Your task to perform on an android device: add a label to a message in the gmail app Image 0: 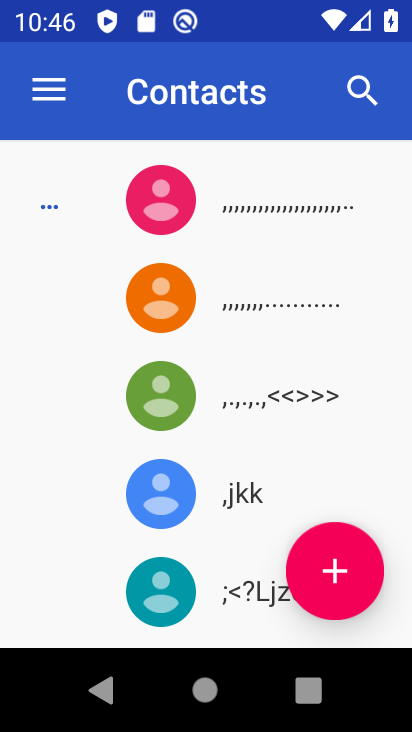
Step 0: press home button
Your task to perform on an android device: add a label to a message in the gmail app Image 1: 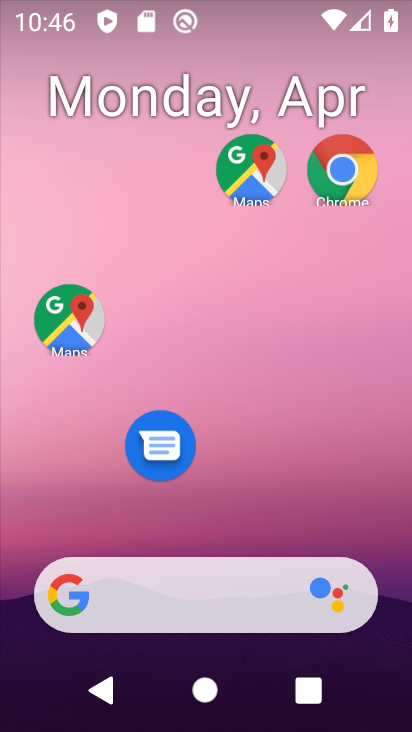
Step 1: drag from (272, 663) to (288, 158)
Your task to perform on an android device: add a label to a message in the gmail app Image 2: 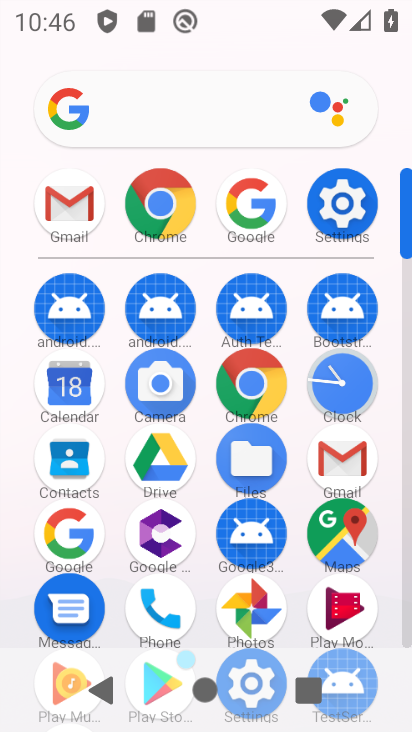
Step 2: click (78, 206)
Your task to perform on an android device: add a label to a message in the gmail app Image 3: 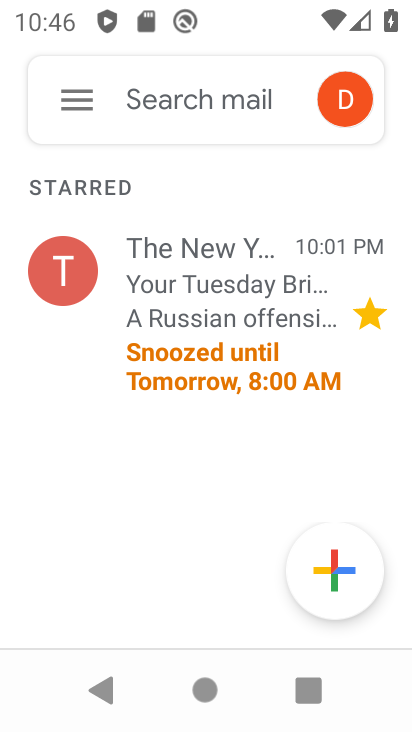
Step 3: click (232, 293)
Your task to perform on an android device: add a label to a message in the gmail app Image 4: 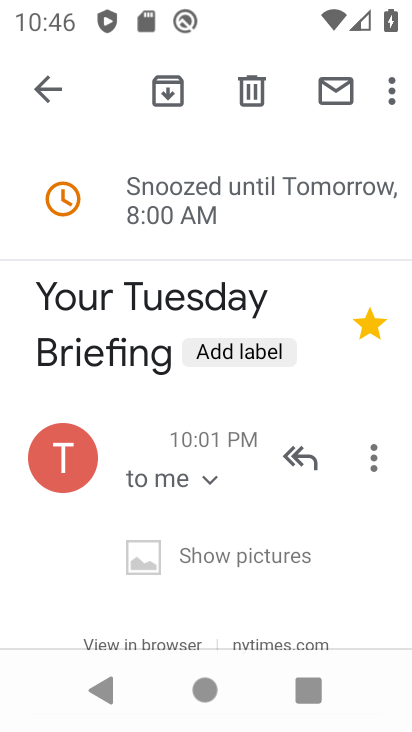
Step 4: click (387, 93)
Your task to perform on an android device: add a label to a message in the gmail app Image 5: 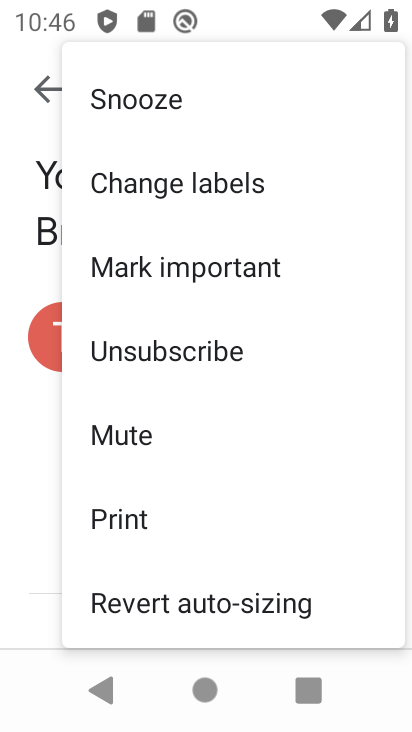
Step 5: click (189, 188)
Your task to perform on an android device: add a label to a message in the gmail app Image 6: 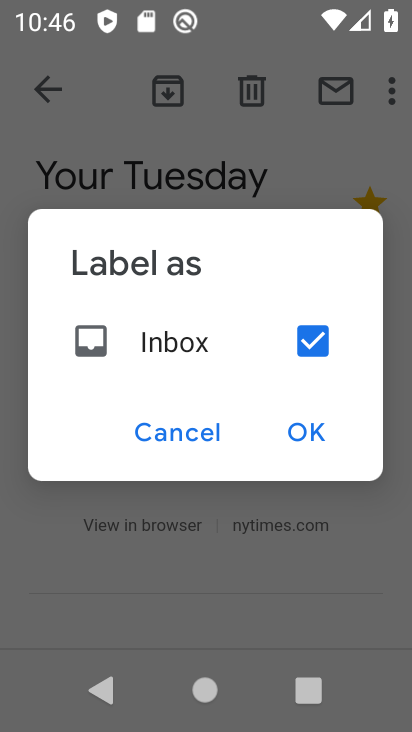
Step 6: click (326, 344)
Your task to perform on an android device: add a label to a message in the gmail app Image 7: 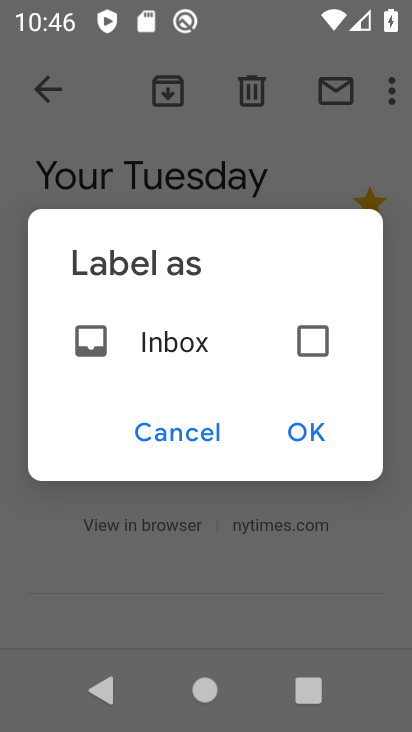
Step 7: click (320, 433)
Your task to perform on an android device: add a label to a message in the gmail app Image 8: 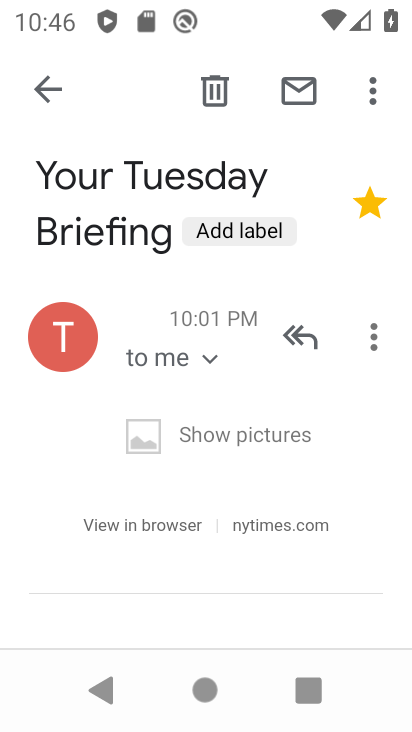
Step 8: task complete